Your task to perform on an android device: turn on wifi Image 0: 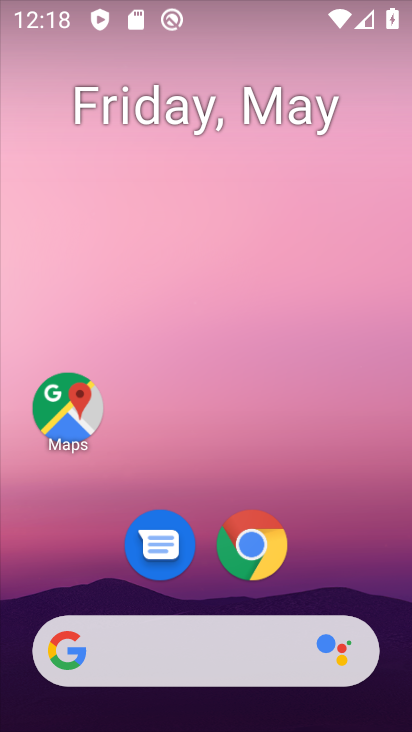
Step 0: drag from (332, 555) to (353, 96)
Your task to perform on an android device: turn on wifi Image 1: 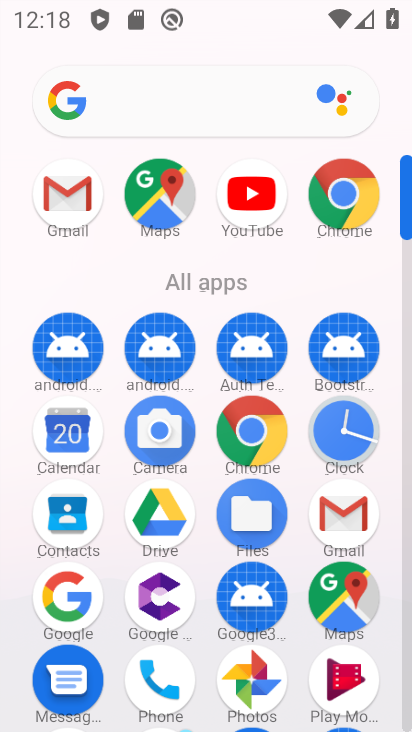
Step 1: drag from (206, 662) to (222, 284)
Your task to perform on an android device: turn on wifi Image 2: 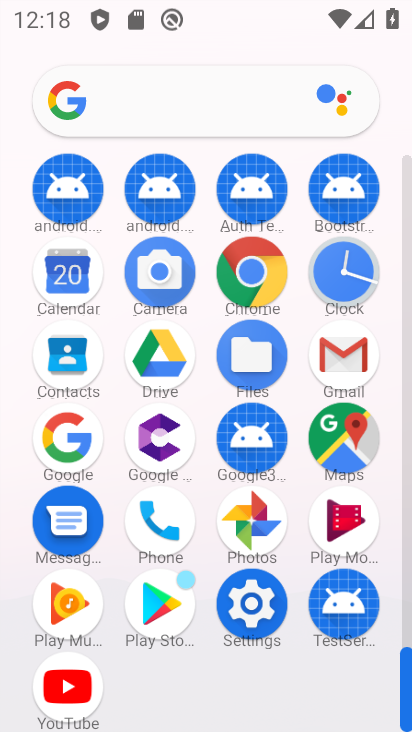
Step 2: click (244, 610)
Your task to perform on an android device: turn on wifi Image 3: 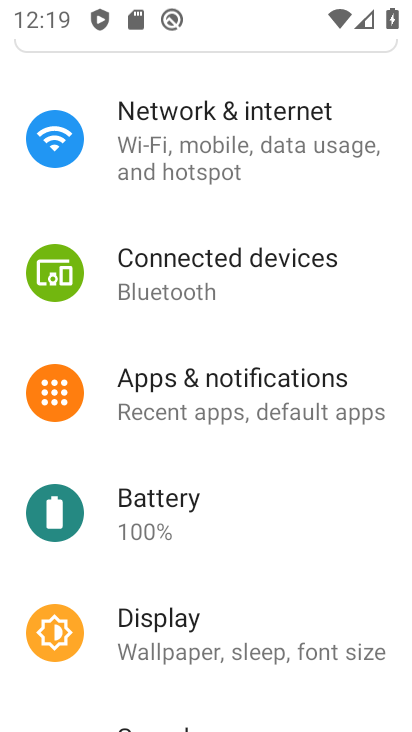
Step 3: click (267, 146)
Your task to perform on an android device: turn on wifi Image 4: 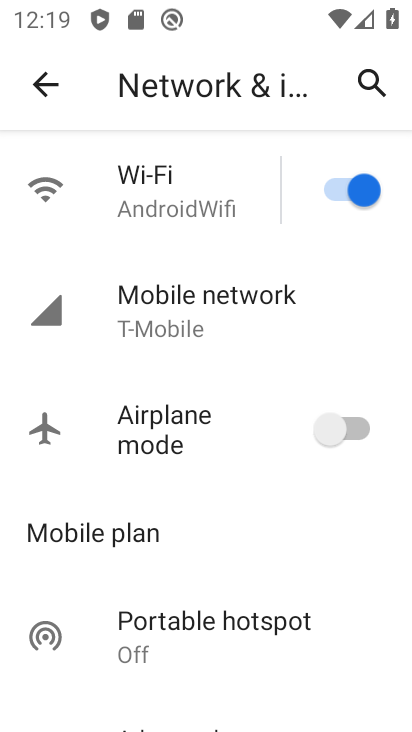
Step 4: press home button
Your task to perform on an android device: turn on wifi Image 5: 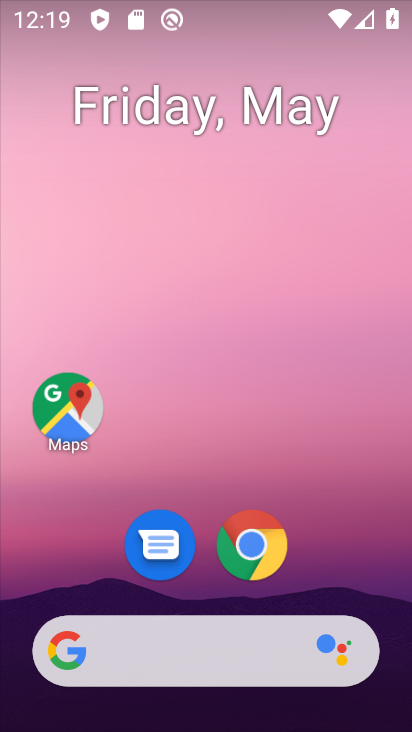
Step 5: drag from (360, 576) to (361, 143)
Your task to perform on an android device: turn on wifi Image 6: 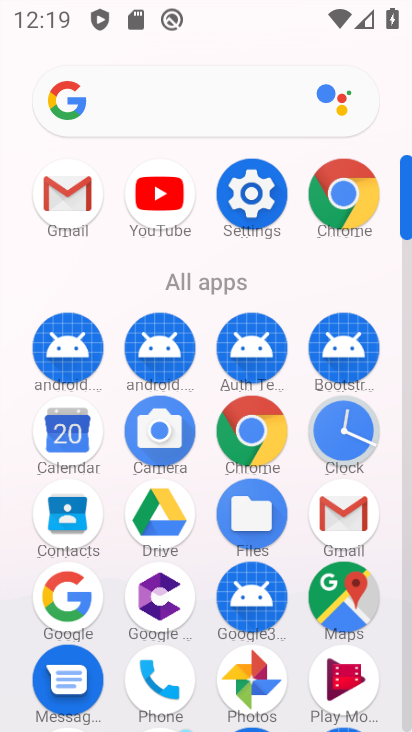
Step 6: click (243, 189)
Your task to perform on an android device: turn on wifi Image 7: 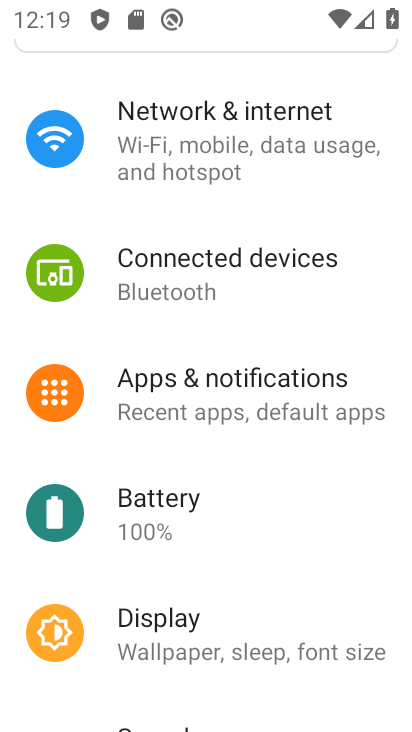
Step 7: click (236, 145)
Your task to perform on an android device: turn on wifi Image 8: 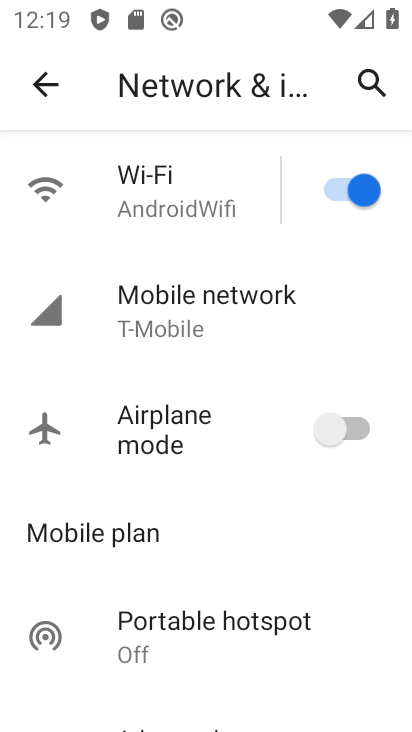
Step 8: task complete